Your task to perform on an android device: check data usage Image 0: 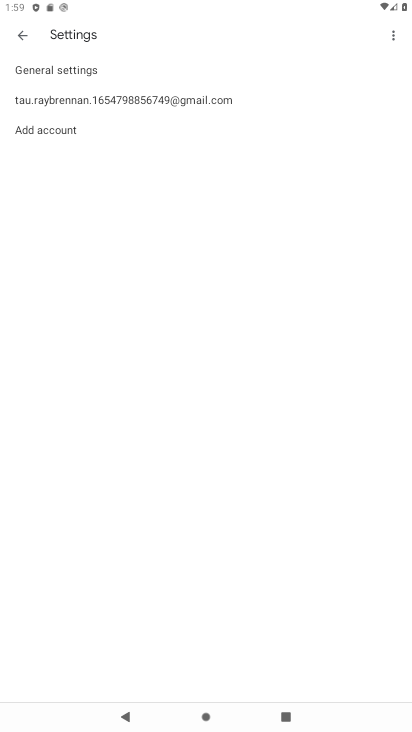
Step 0: click (18, 35)
Your task to perform on an android device: check data usage Image 1: 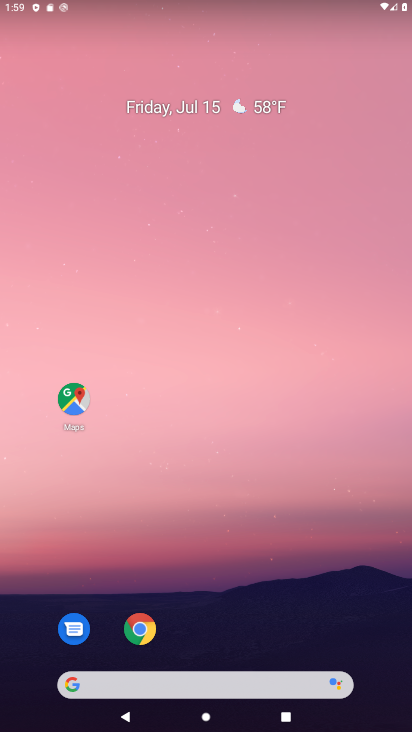
Step 1: drag from (188, 511) to (142, 168)
Your task to perform on an android device: check data usage Image 2: 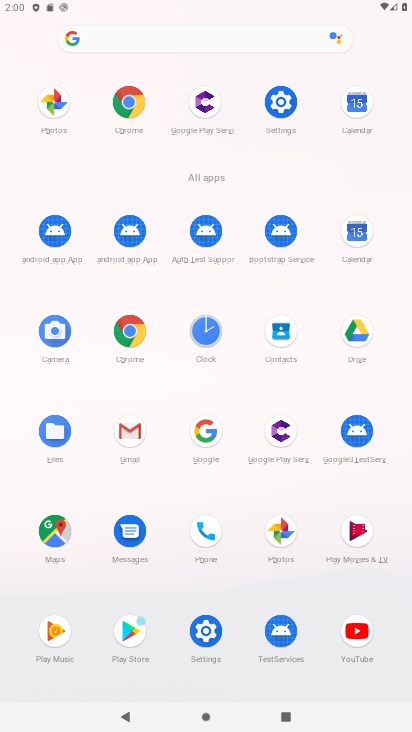
Step 2: click (119, 103)
Your task to perform on an android device: check data usage Image 3: 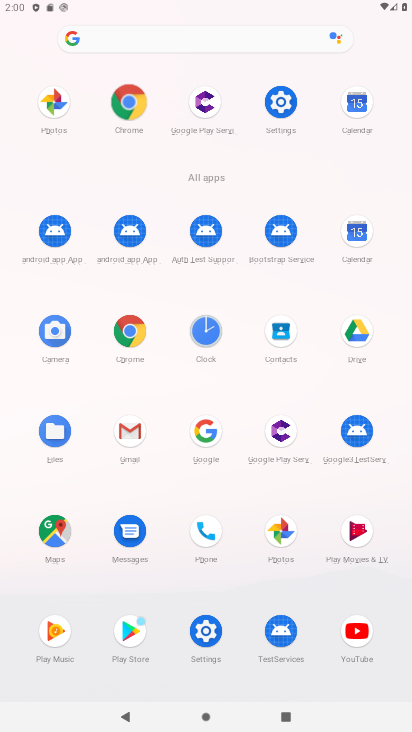
Step 3: click (119, 103)
Your task to perform on an android device: check data usage Image 4: 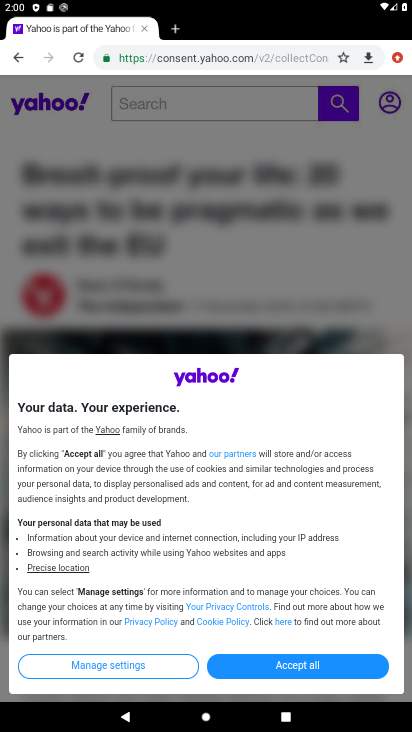
Step 4: press back button
Your task to perform on an android device: check data usage Image 5: 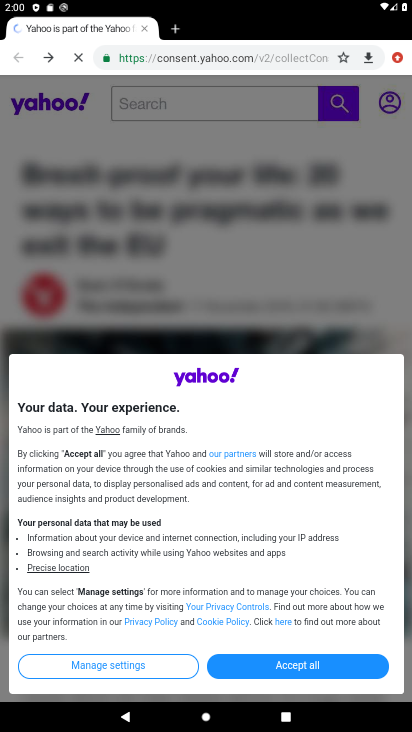
Step 5: press back button
Your task to perform on an android device: check data usage Image 6: 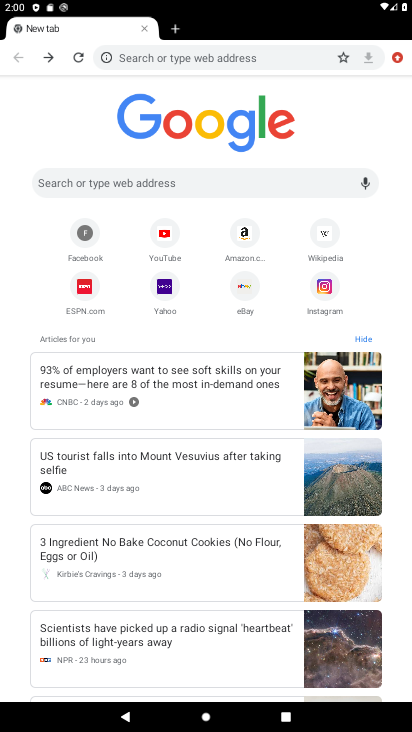
Step 6: press home button
Your task to perform on an android device: check data usage Image 7: 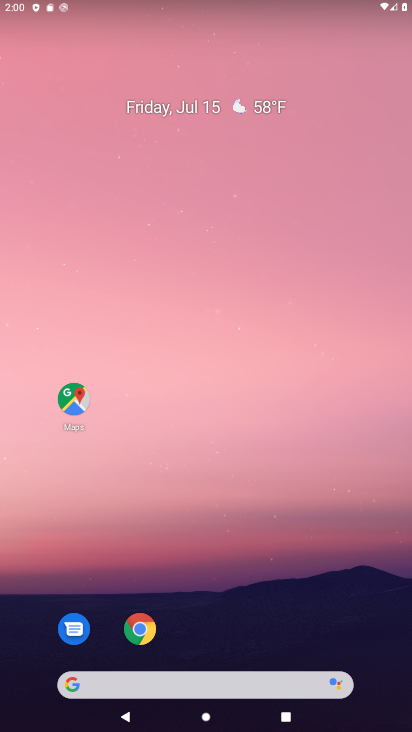
Step 7: drag from (201, 625) to (144, 221)
Your task to perform on an android device: check data usage Image 8: 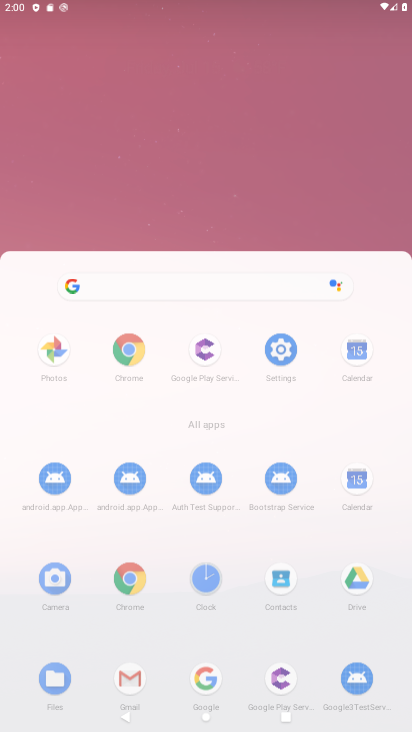
Step 8: drag from (175, 567) to (123, 140)
Your task to perform on an android device: check data usage Image 9: 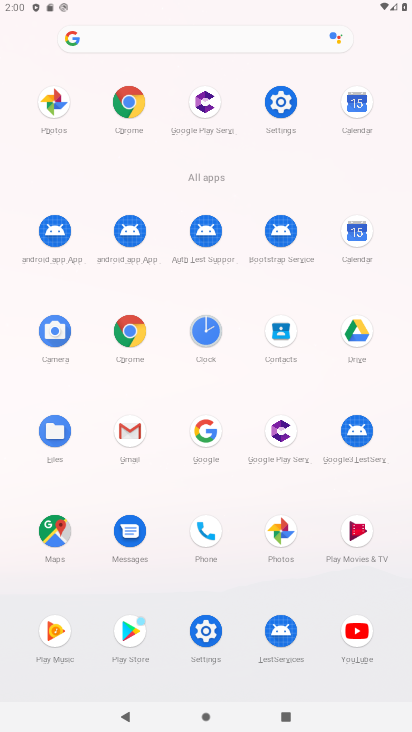
Step 9: click (281, 101)
Your task to perform on an android device: check data usage Image 10: 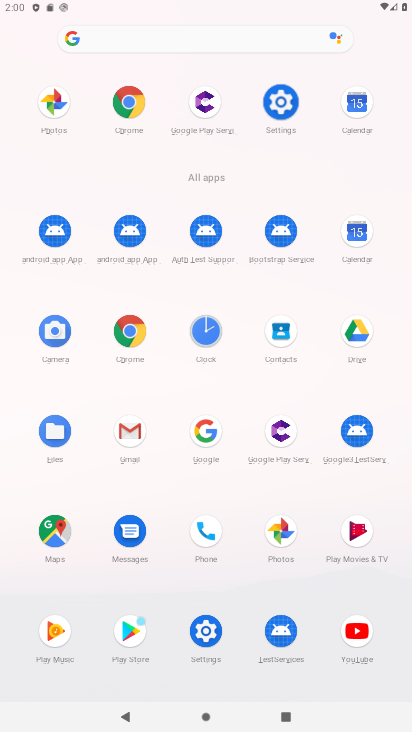
Step 10: click (281, 101)
Your task to perform on an android device: check data usage Image 11: 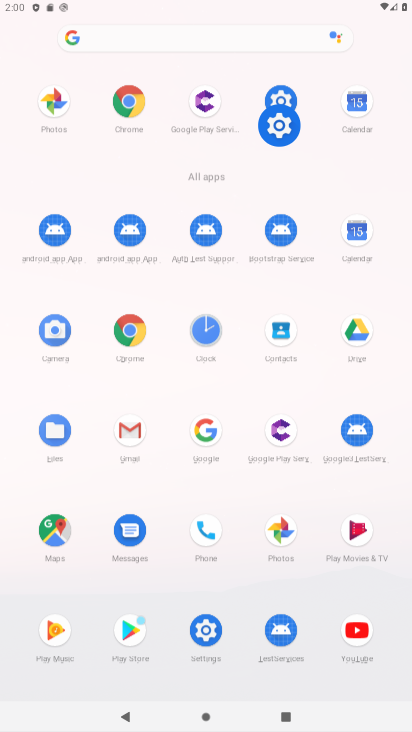
Step 11: click (280, 108)
Your task to perform on an android device: check data usage Image 12: 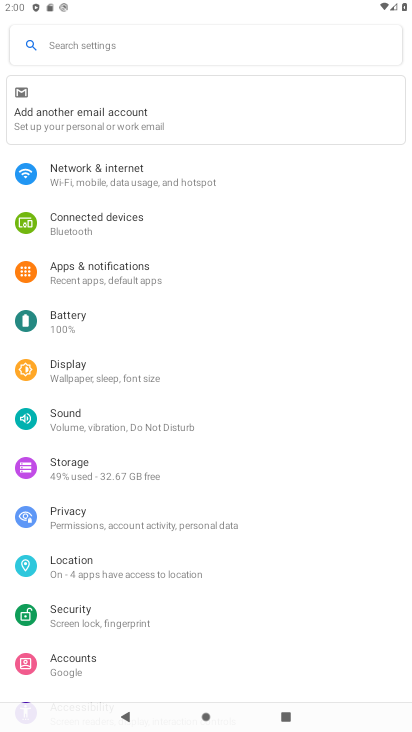
Step 12: click (110, 178)
Your task to perform on an android device: check data usage Image 13: 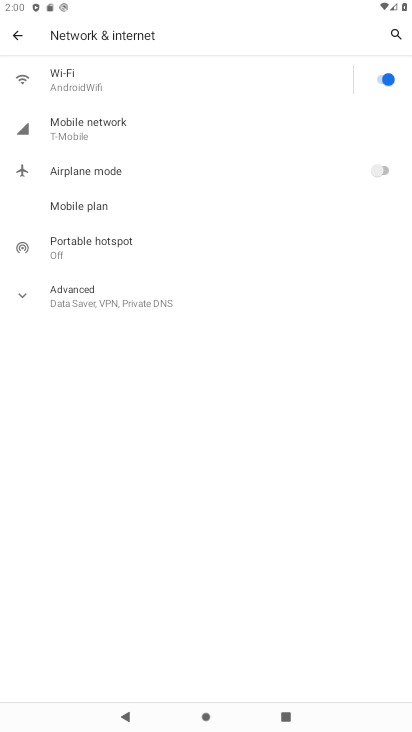
Step 13: click (67, 128)
Your task to perform on an android device: check data usage Image 14: 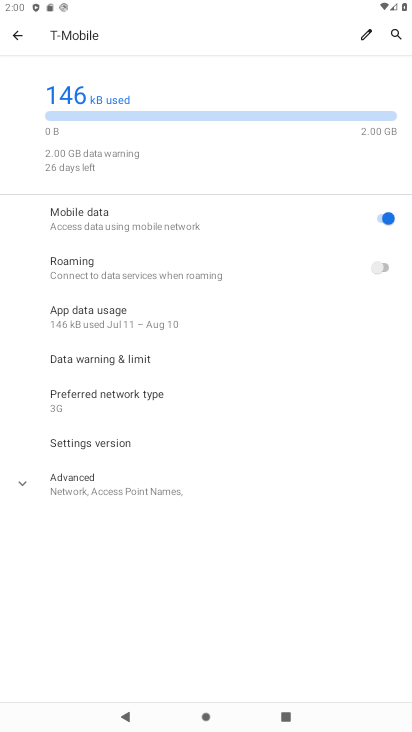
Step 14: task complete